Your task to perform on an android device: Open Yahoo.com Image 0: 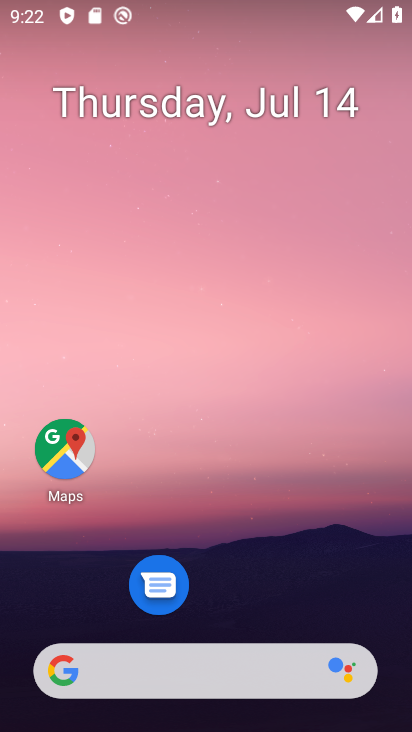
Step 0: drag from (241, 631) to (298, 1)
Your task to perform on an android device: Open Yahoo.com Image 1: 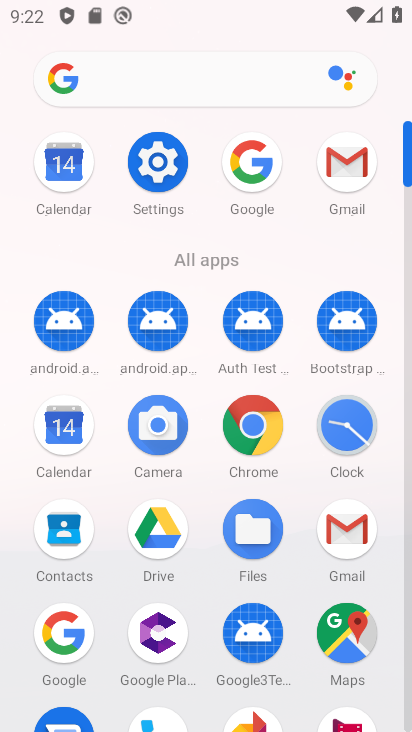
Step 1: click (245, 412)
Your task to perform on an android device: Open Yahoo.com Image 2: 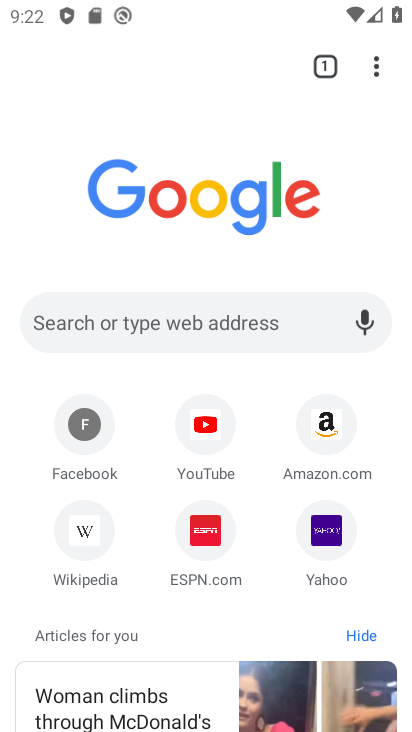
Step 2: click (330, 514)
Your task to perform on an android device: Open Yahoo.com Image 3: 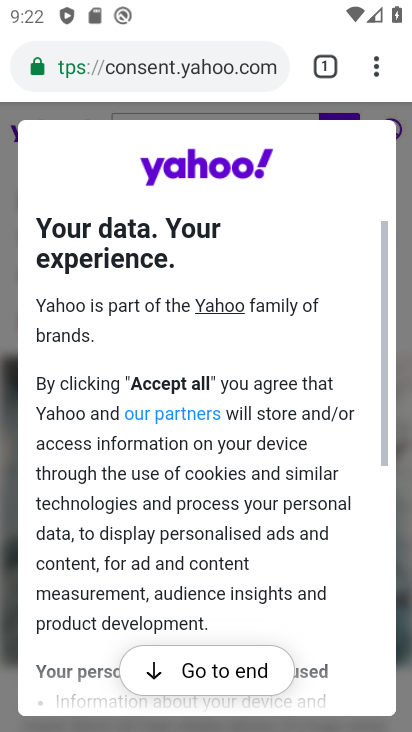
Step 3: drag from (330, 514) to (260, 68)
Your task to perform on an android device: Open Yahoo.com Image 4: 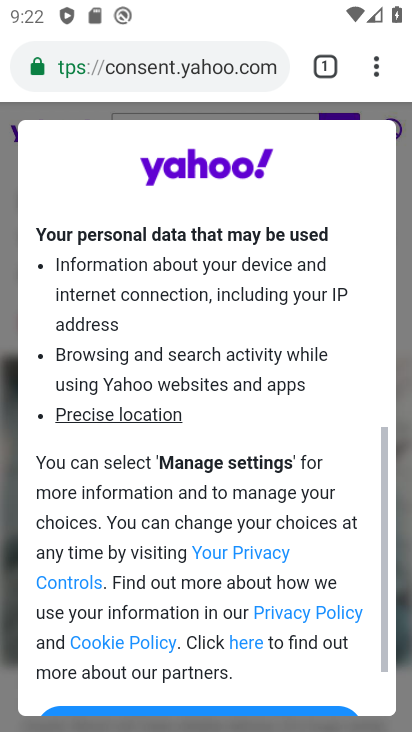
Step 4: drag from (236, 504) to (129, 70)
Your task to perform on an android device: Open Yahoo.com Image 5: 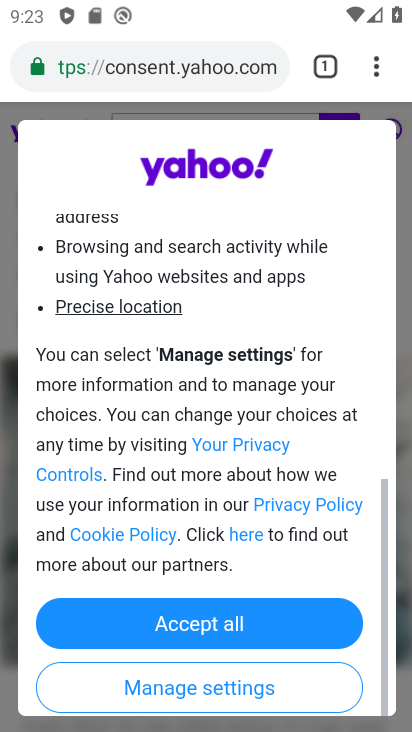
Step 5: click (219, 608)
Your task to perform on an android device: Open Yahoo.com Image 6: 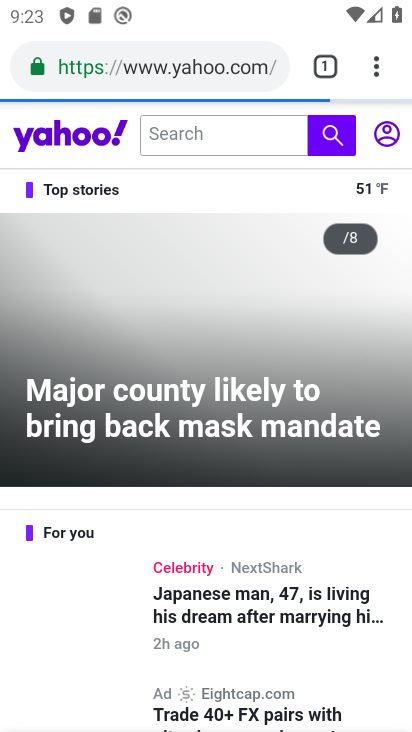
Step 6: task complete